Your task to perform on an android device: star an email in the gmail app Image 0: 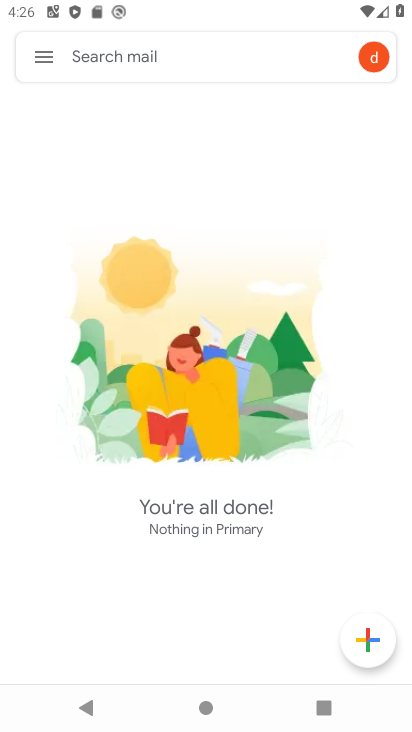
Step 0: click (43, 51)
Your task to perform on an android device: star an email in the gmail app Image 1: 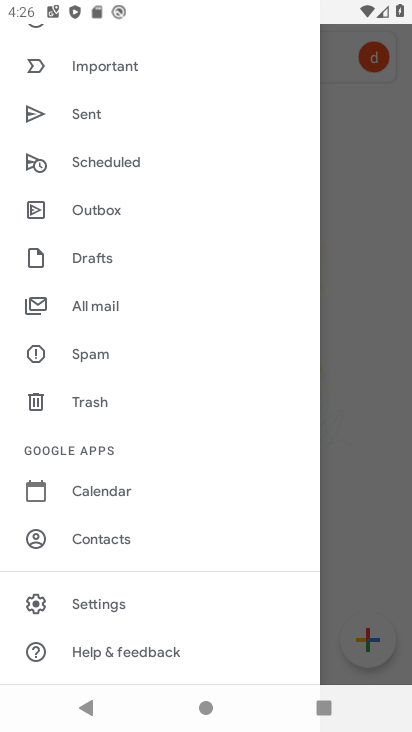
Step 1: click (95, 308)
Your task to perform on an android device: star an email in the gmail app Image 2: 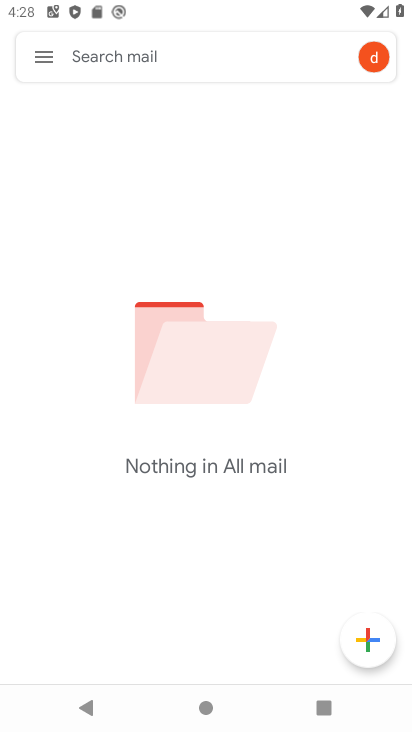
Step 2: task complete